Your task to perform on an android device: Open internet settings Image 0: 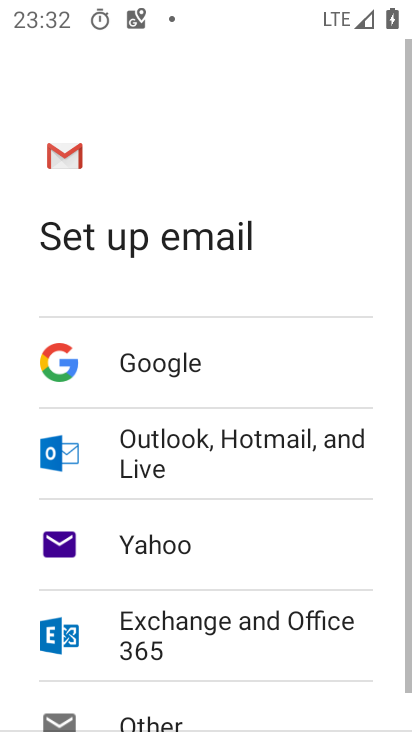
Step 0: press home button
Your task to perform on an android device: Open internet settings Image 1: 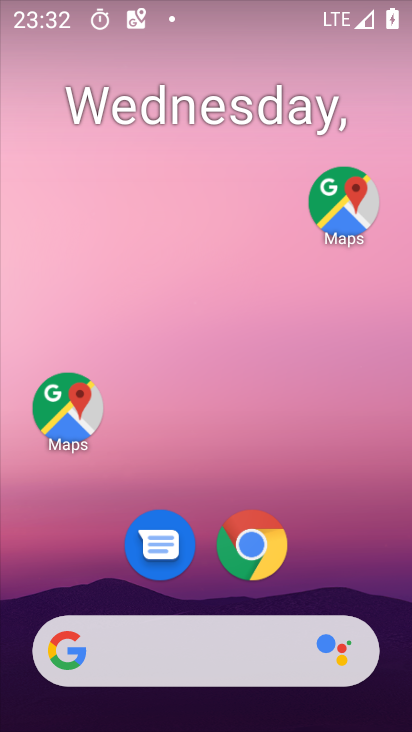
Step 1: drag from (319, 583) to (269, 15)
Your task to perform on an android device: Open internet settings Image 2: 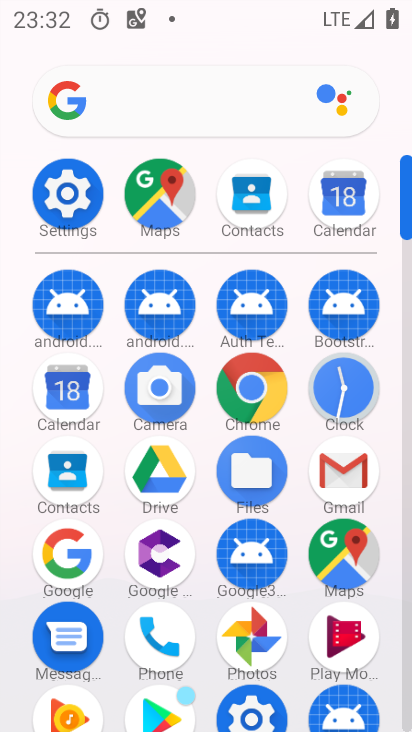
Step 2: click (68, 205)
Your task to perform on an android device: Open internet settings Image 3: 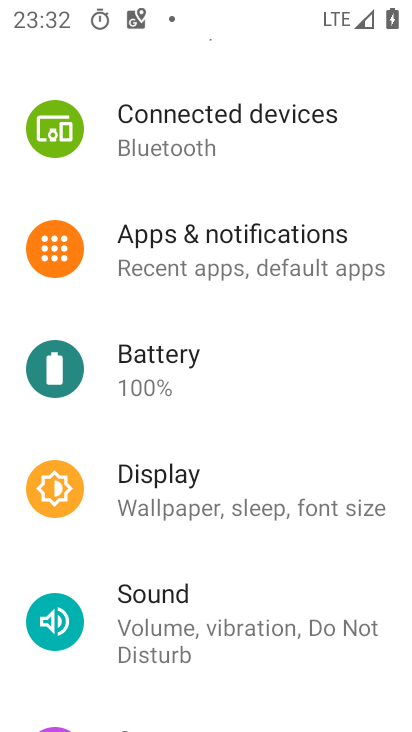
Step 3: drag from (300, 258) to (346, 458)
Your task to perform on an android device: Open internet settings Image 4: 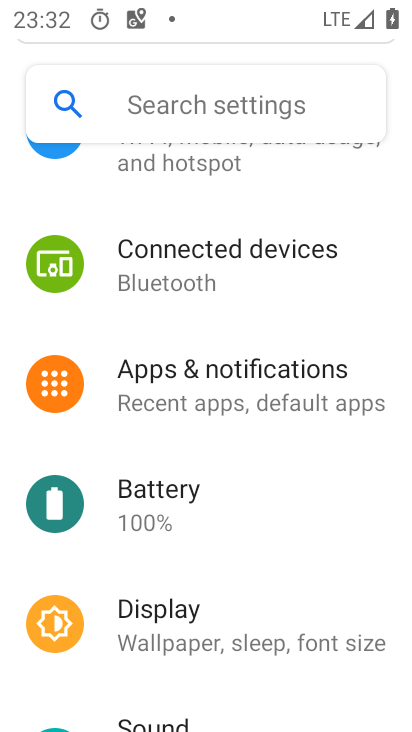
Step 4: drag from (267, 301) to (287, 470)
Your task to perform on an android device: Open internet settings Image 5: 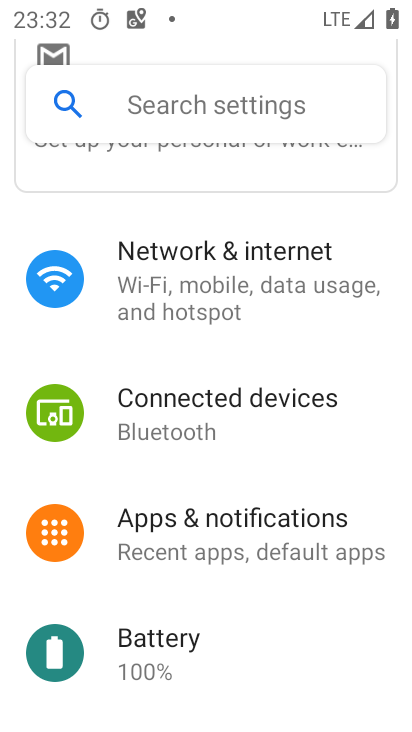
Step 5: click (233, 297)
Your task to perform on an android device: Open internet settings Image 6: 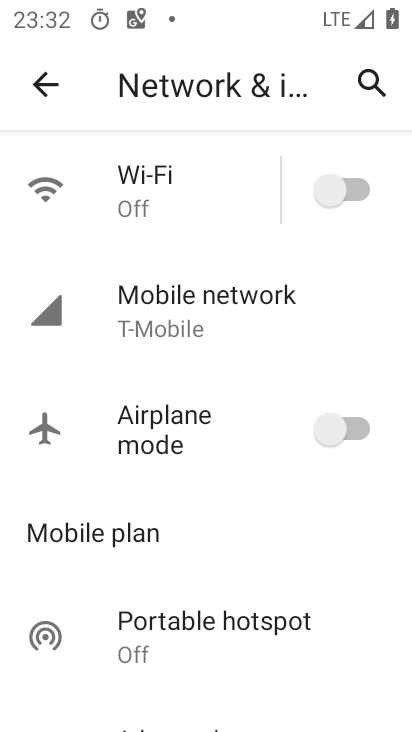
Step 6: click (160, 324)
Your task to perform on an android device: Open internet settings Image 7: 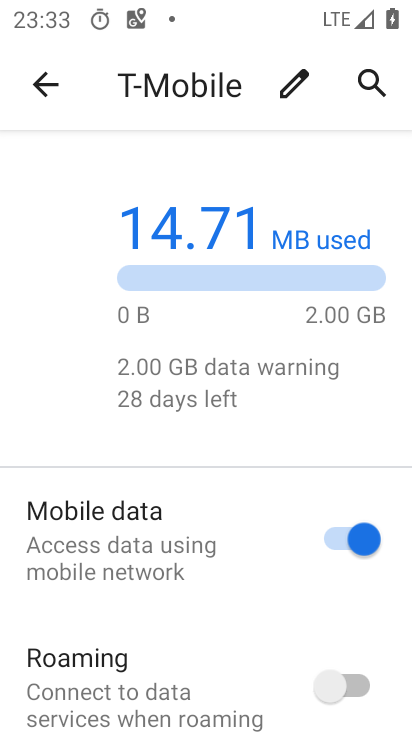
Step 7: task complete